Your task to perform on an android device: Open Wikipedia Image 0: 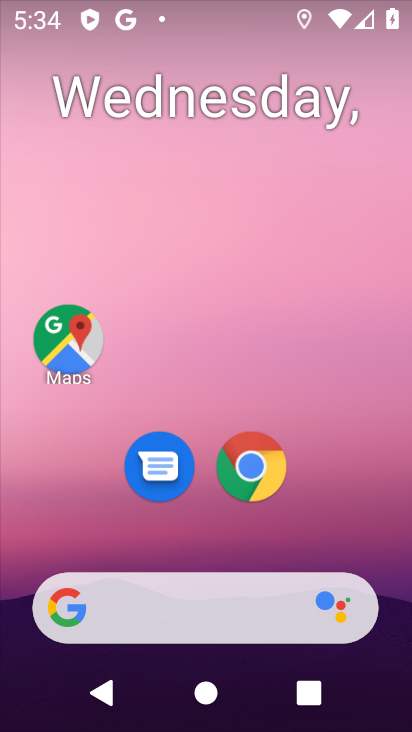
Step 0: drag from (318, 488) to (288, 66)
Your task to perform on an android device: Open Wikipedia Image 1: 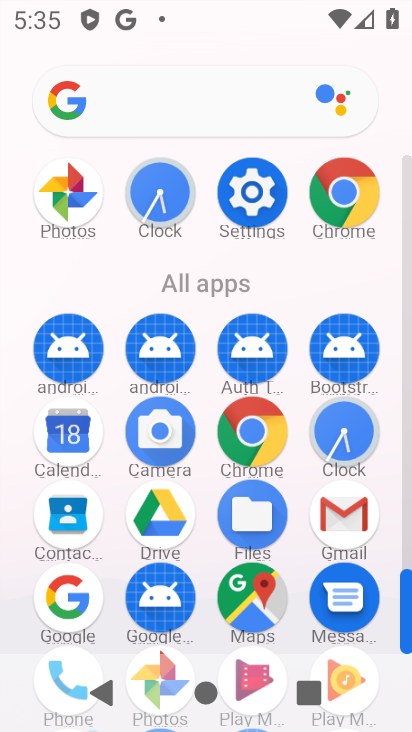
Step 1: click (333, 196)
Your task to perform on an android device: Open Wikipedia Image 2: 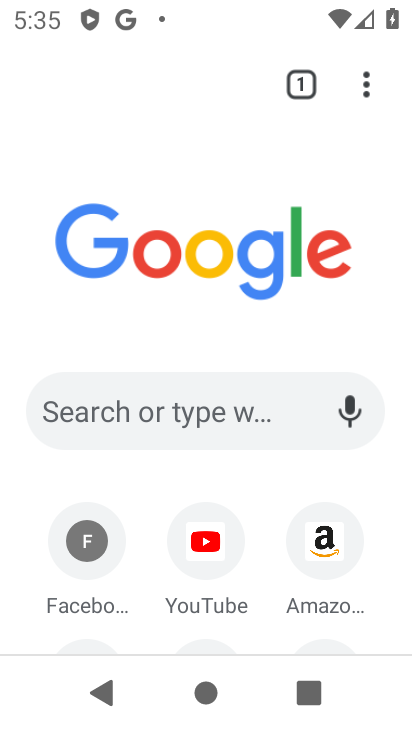
Step 2: drag from (323, 545) to (10, 373)
Your task to perform on an android device: Open Wikipedia Image 3: 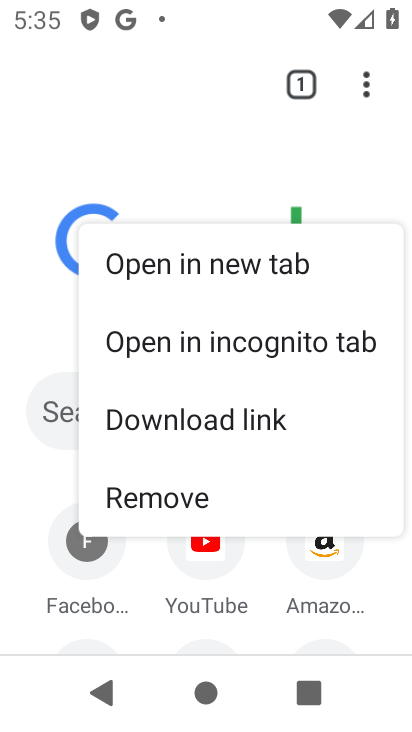
Step 3: drag from (96, 129) to (98, 331)
Your task to perform on an android device: Open Wikipedia Image 4: 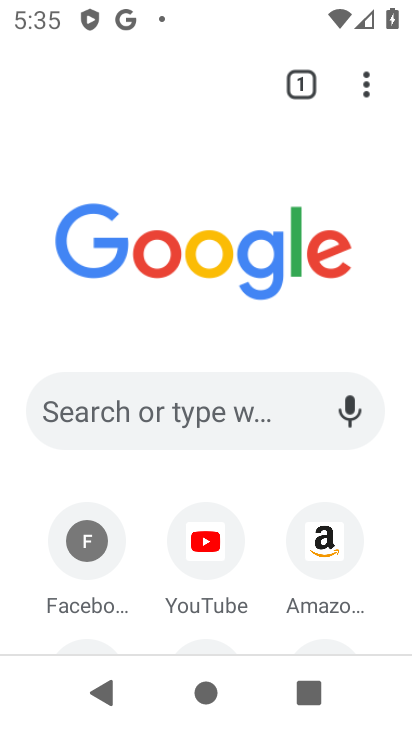
Step 4: click (232, 154)
Your task to perform on an android device: Open Wikipedia Image 5: 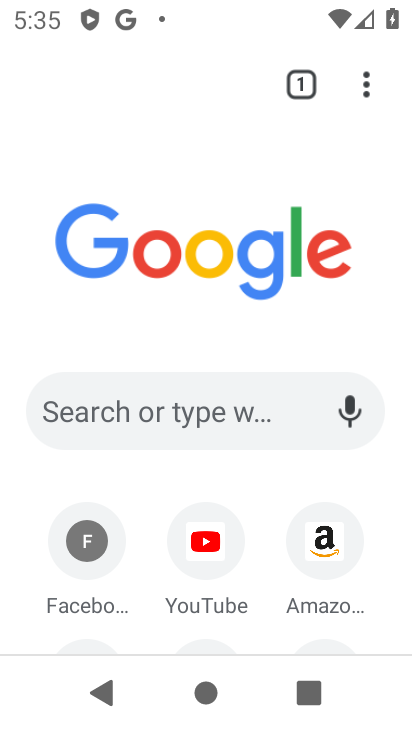
Step 5: task complete